Your task to perform on an android device: Search for pizza restaurants on Maps Image 0: 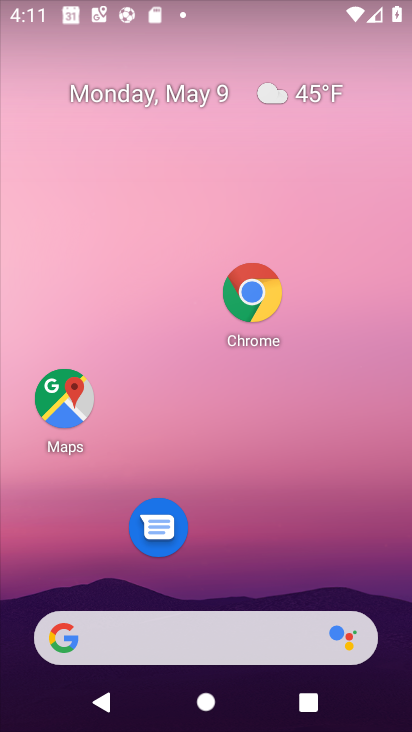
Step 0: click (67, 405)
Your task to perform on an android device: Search for pizza restaurants on Maps Image 1: 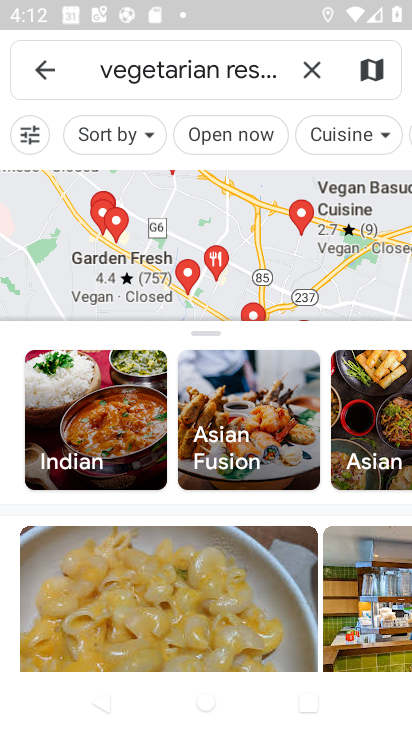
Step 1: click (321, 65)
Your task to perform on an android device: Search for pizza restaurants on Maps Image 2: 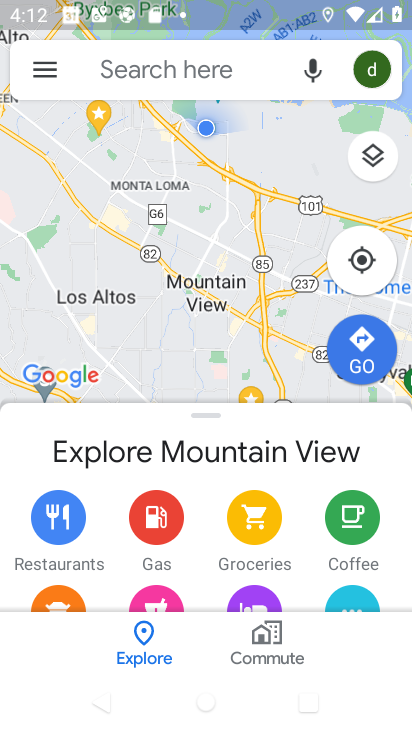
Step 2: click (230, 65)
Your task to perform on an android device: Search for pizza restaurants on Maps Image 3: 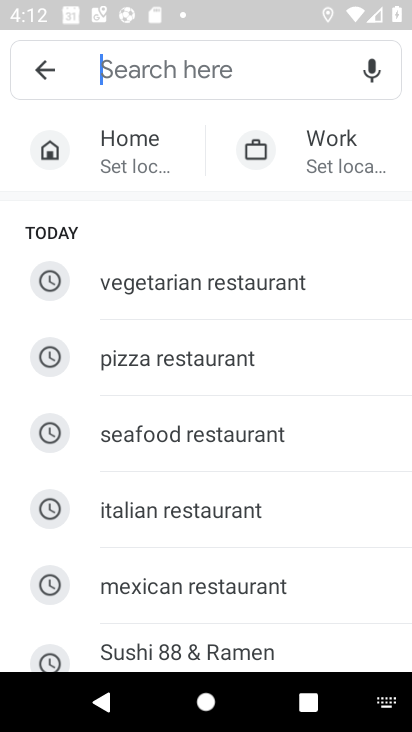
Step 3: click (204, 365)
Your task to perform on an android device: Search for pizza restaurants on Maps Image 4: 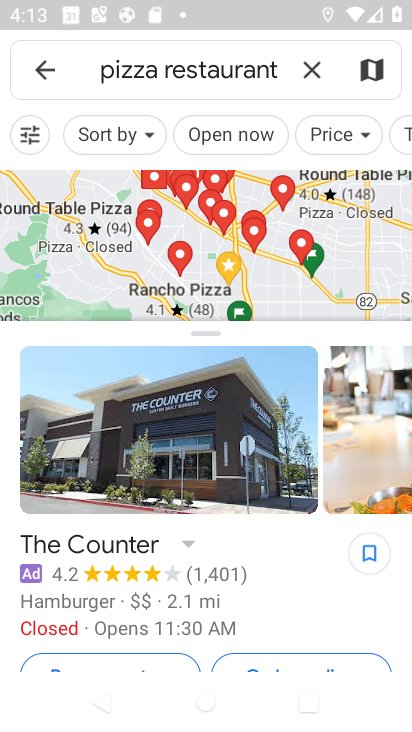
Step 4: task complete